Your task to perform on an android device: Open Youtube and go to the subscriptions tab Image 0: 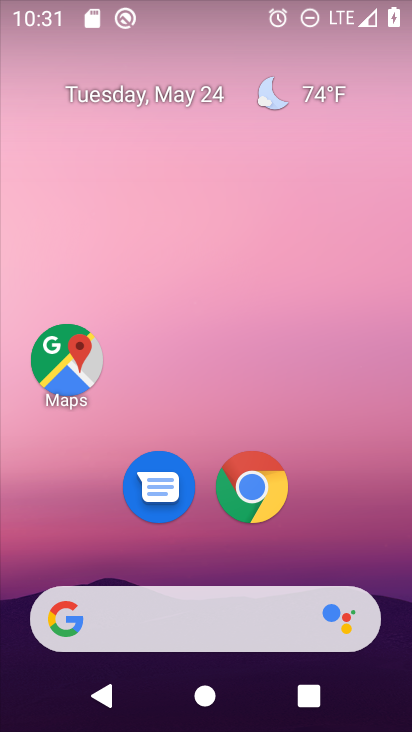
Step 0: drag from (355, 576) to (352, 28)
Your task to perform on an android device: Open Youtube and go to the subscriptions tab Image 1: 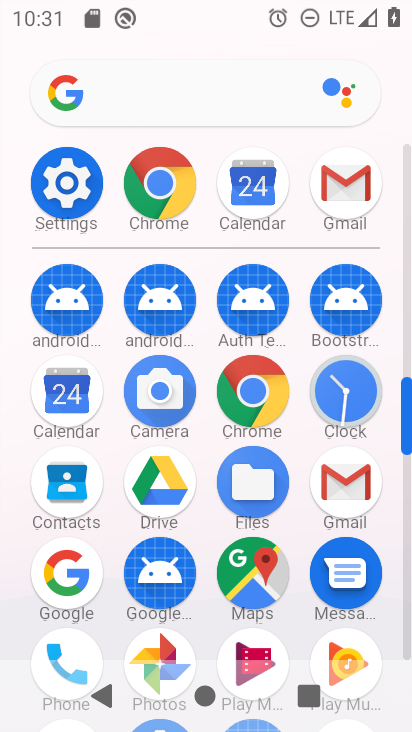
Step 1: click (405, 377)
Your task to perform on an android device: Open Youtube and go to the subscriptions tab Image 2: 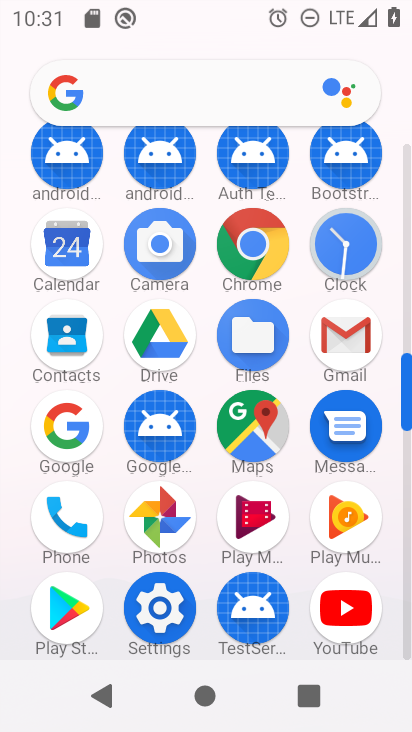
Step 2: click (355, 617)
Your task to perform on an android device: Open Youtube and go to the subscriptions tab Image 3: 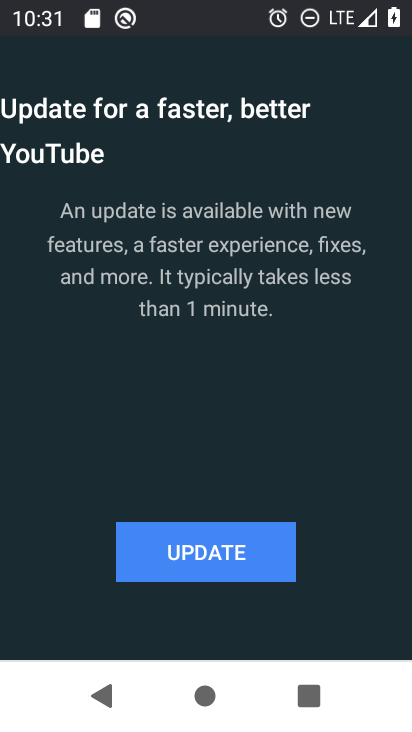
Step 3: click (215, 545)
Your task to perform on an android device: Open Youtube and go to the subscriptions tab Image 4: 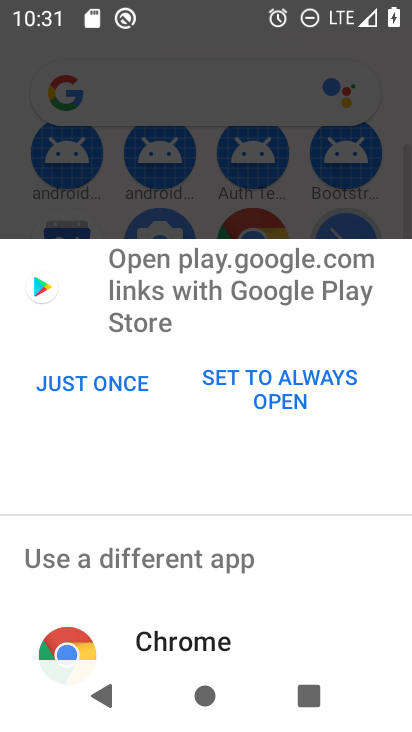
Step 4: click (88, 377)
Your task to perform on an android device: Open Youtube and go to the subscriptions tab Image 5: 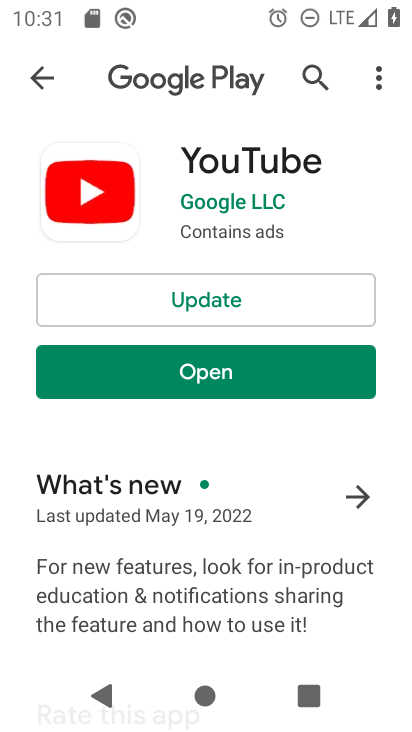
Step 5: click (210, 302)
Your task to perform on an android device: Open Youtube and go to the subscriptions tab Image 6: 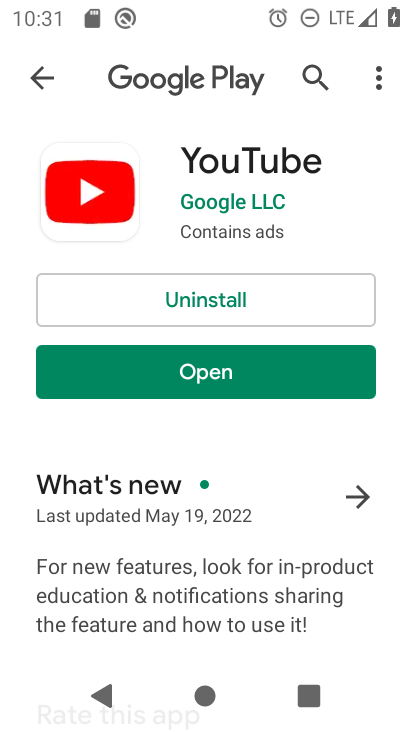
Step 6: click (204, 384)
Your task to perform on an android device: Open Youtube and go to the subscriptions tab Image 7: 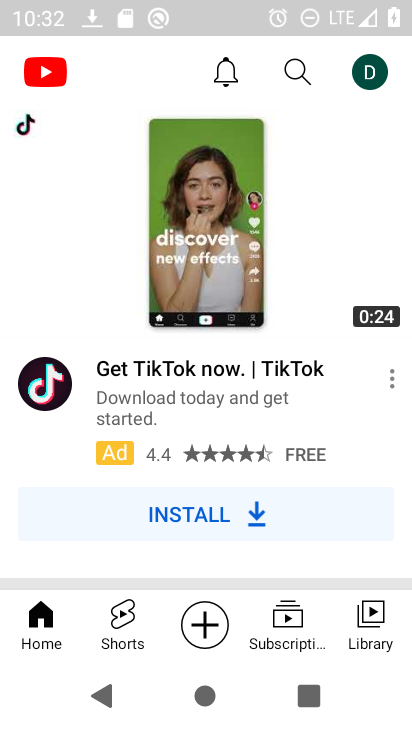
Step 7: click (290, 630)
Your task to perform on an android device: Open Youtube and go to the subscriptions tab Image 8: 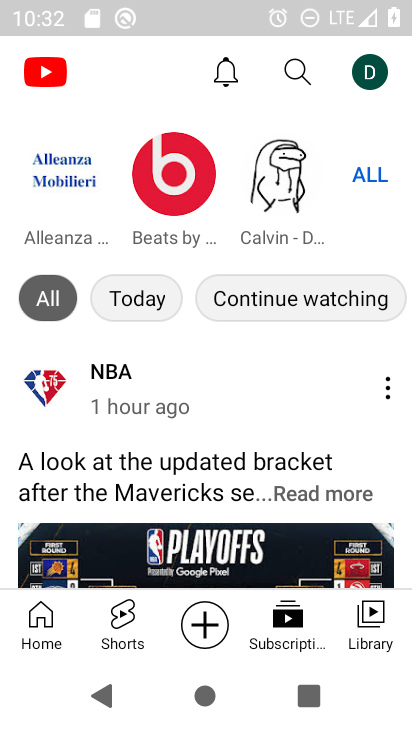
Step 8: task complete